Your task to perform on an android device: open app "Facebook Lite" Image 0: 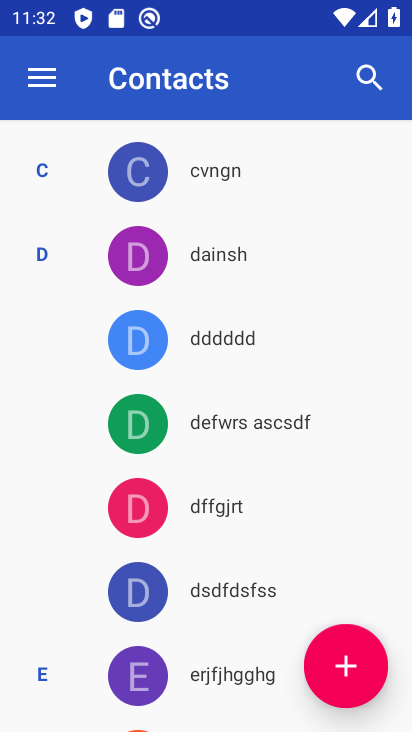
Step 0: drag from (206, 589) to (251, 3)
Your task to perform on an android device: open app "Facebook Lite" Image 1: 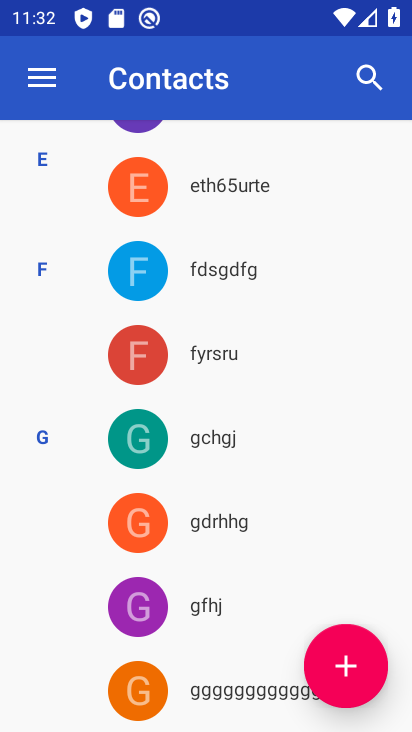
Step 1: press home button
Your task to perform on an android device: open app "Facebook Lite" Image 2: 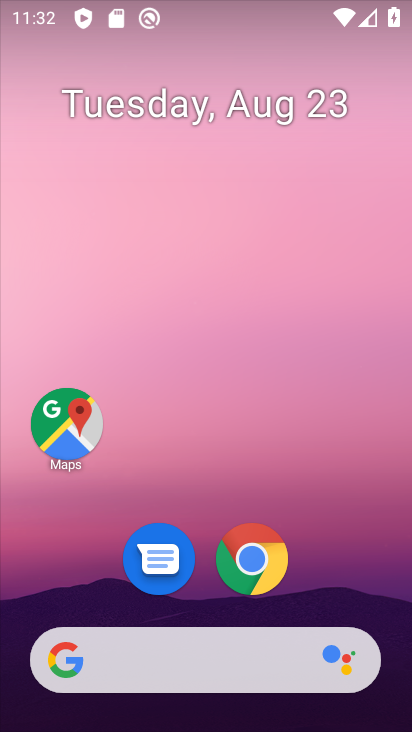
Step 2: drag from (216, 489) to (240, 2)
Your task to perform on an android device: open app "Facebook Lite" Image 3: 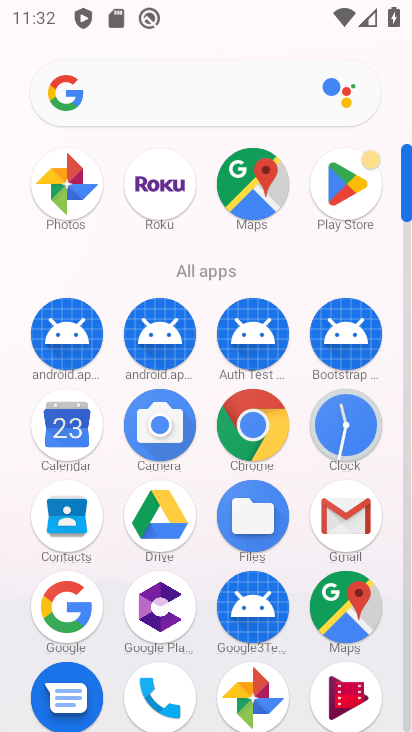
Step 3: click (354, 184)
Your task to perform on an android device: open app "Facebook Lite" Image 4: 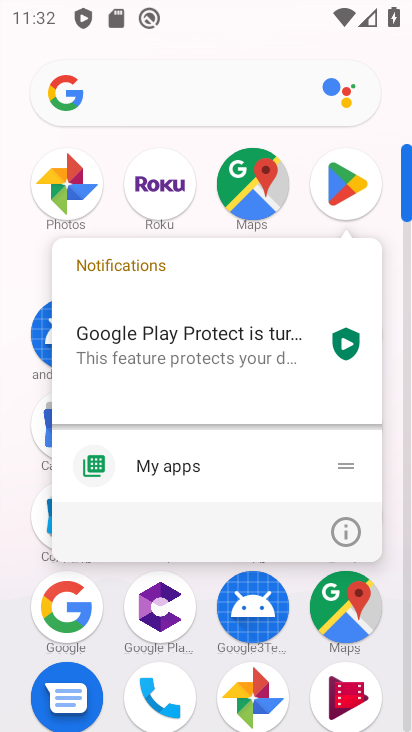
Step 4: click (366, 197)
Your task to perform on an android device: open app "Facebook Lite" Image 5: 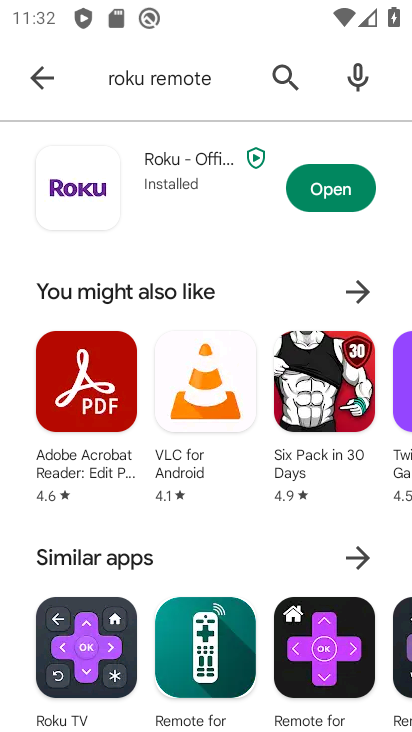
Step 5: click (193, 73)
Your task to perform on an android device: open app "Facebook Lite" Image 6: 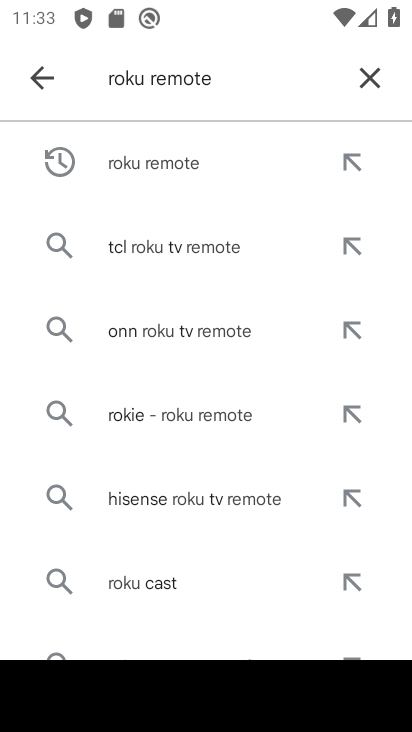
Step 6: click (365, 70)
Your task to perform on an android device: open app "Facebook Lite" Image 7: 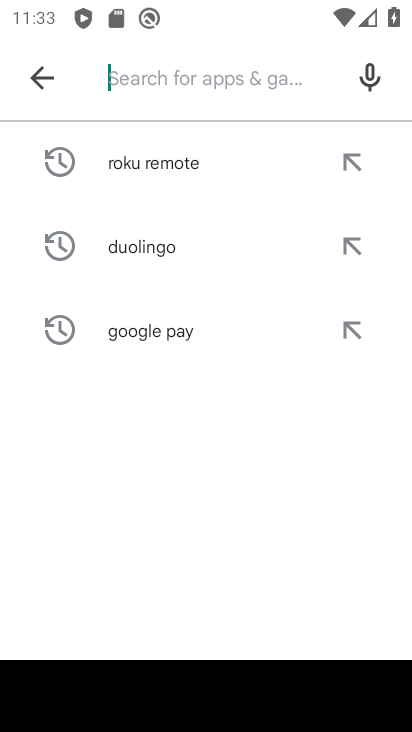
Step 7: type "facebook lite"
Your task to perform on an android device: open app "Facebook Lite" Image 8: 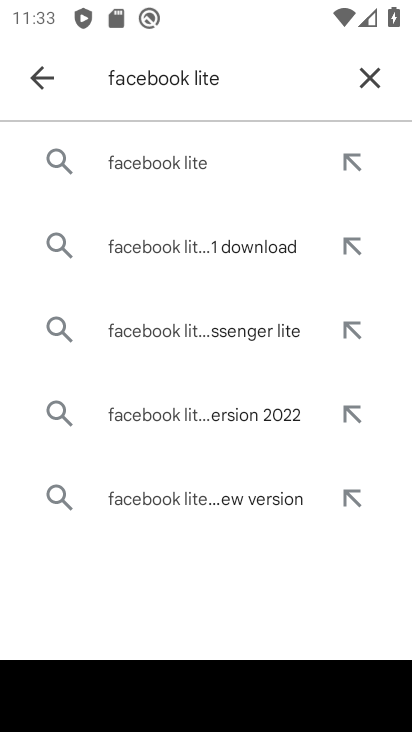
Step 8: click (169, 153)
Your task to perform on an android device: open app "Facebook Lite" Image 9: 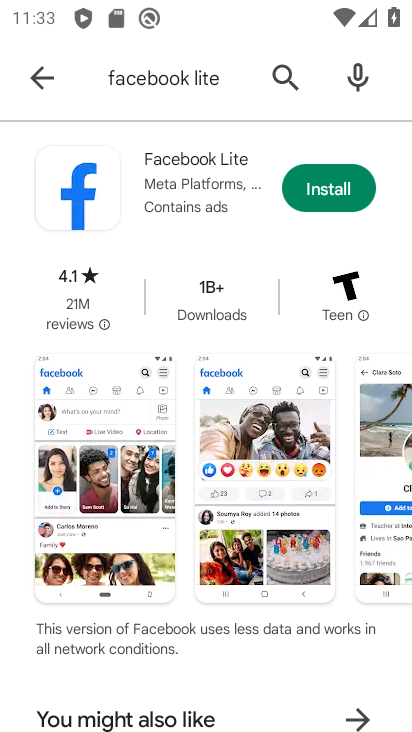
Step 9: task complete